Your task to perform on an android device: star an email in the gmail app Image 0: 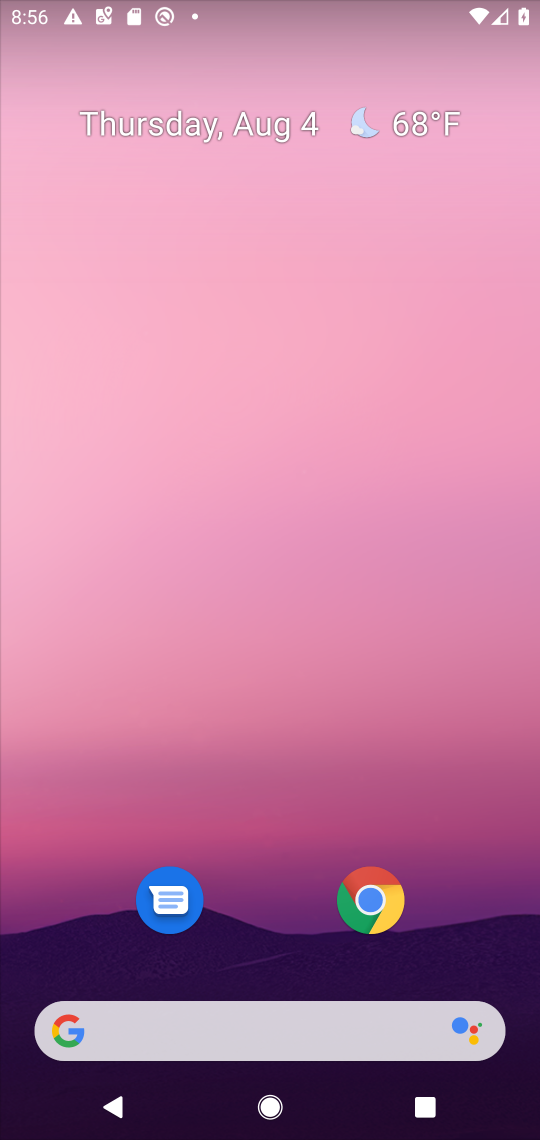
Step 0: click (297, 150)
Your task to perform on an android device: star an email in the gmail app Image 1: 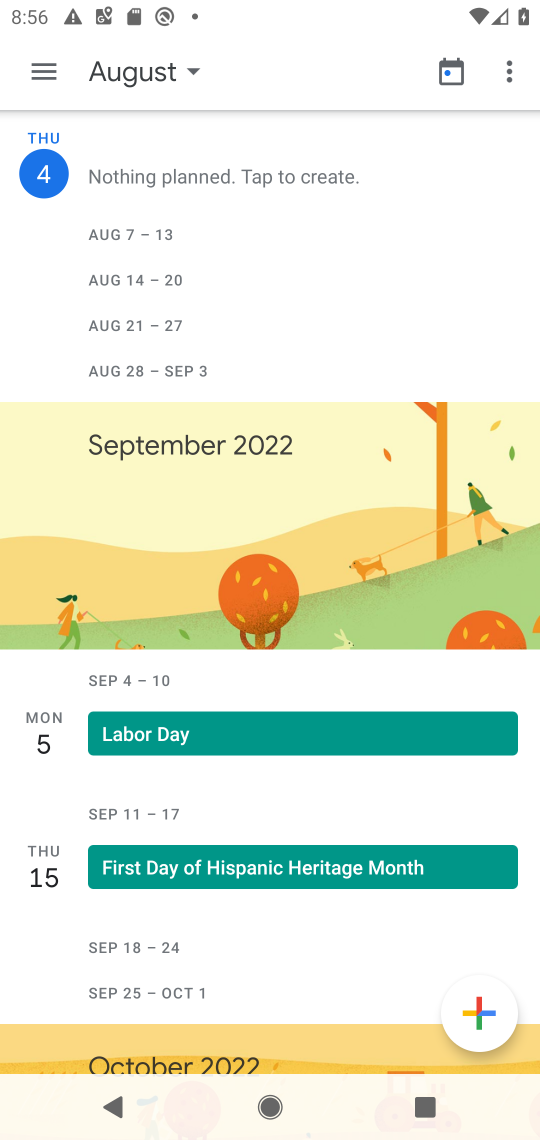
Step 1: press home button
Your task to perform on an android device: star an email in the gmail app Image 2: 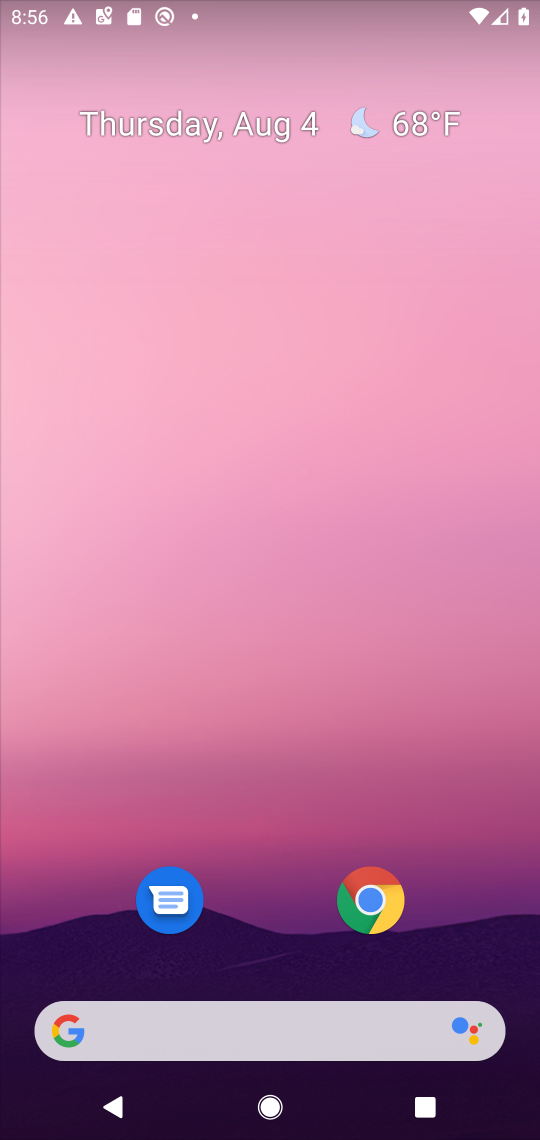
Step 2: drag from (272, 952) to (249, 263)
Your task to perform on an android device: star an email in the gmail app Image 3: 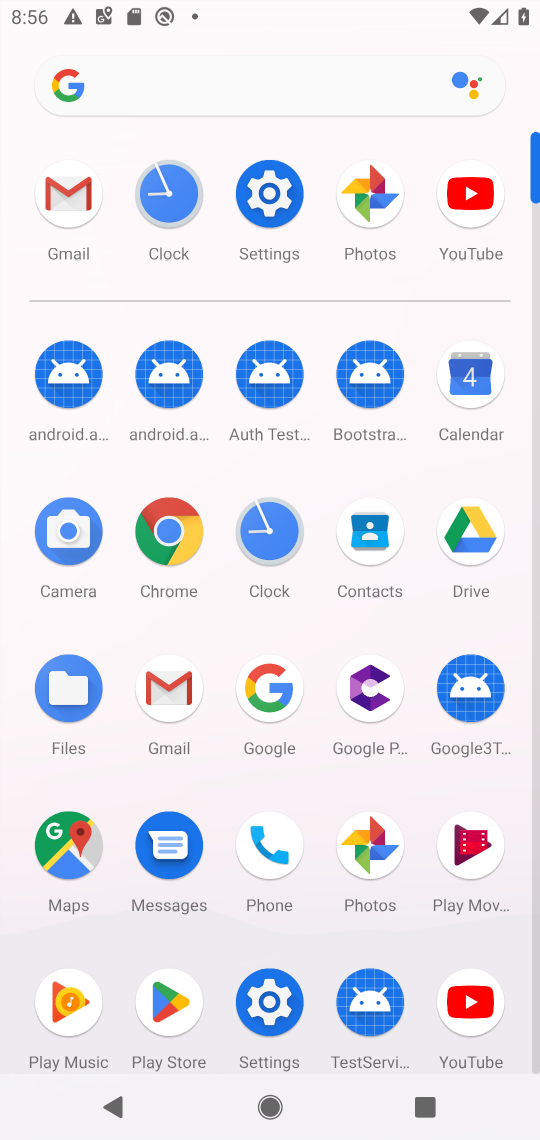
Step 3: click (73, 194)
Your task to perform on an android device: star an email in the gmail app Image 4: 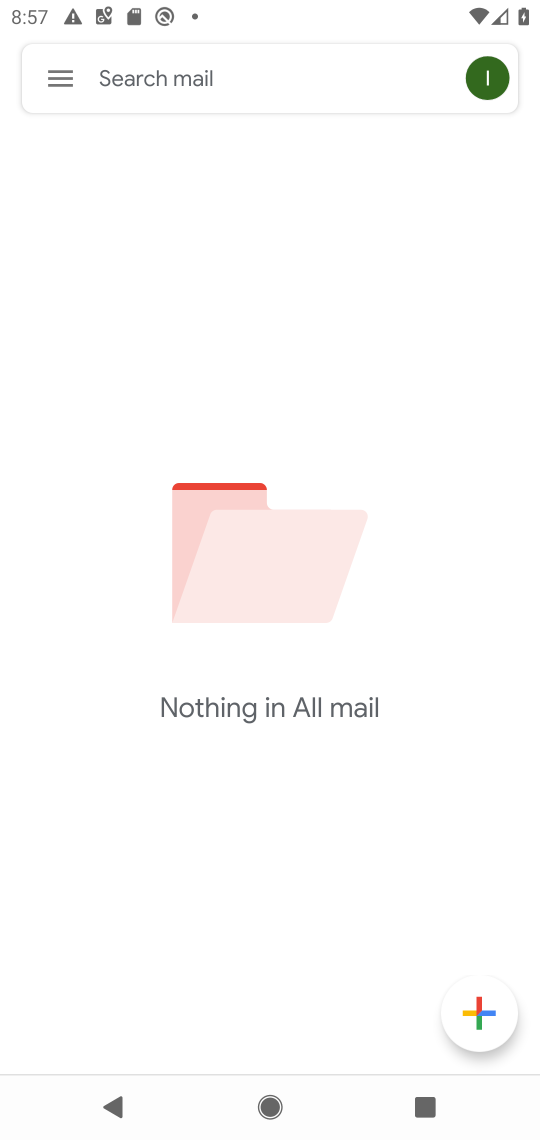
Step 4: click (57, 75)
Your task to perform on an android device: star an email in the gmail app Image 5: 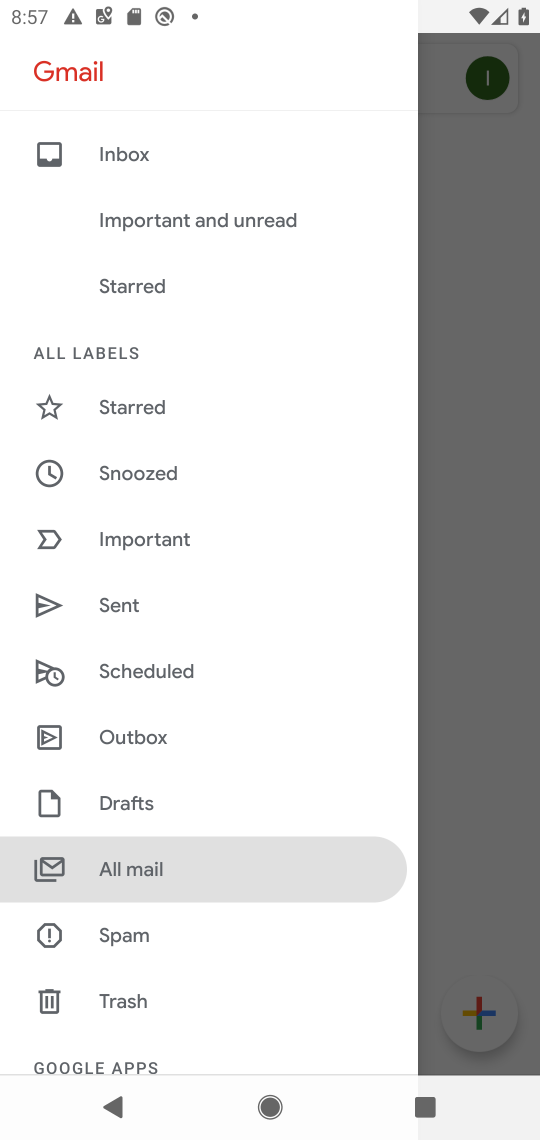
Step 5: task complete